Your task to perform on an android device: Search for razer blade on walmart, select the first entry, and add it to the cart. Image 0: 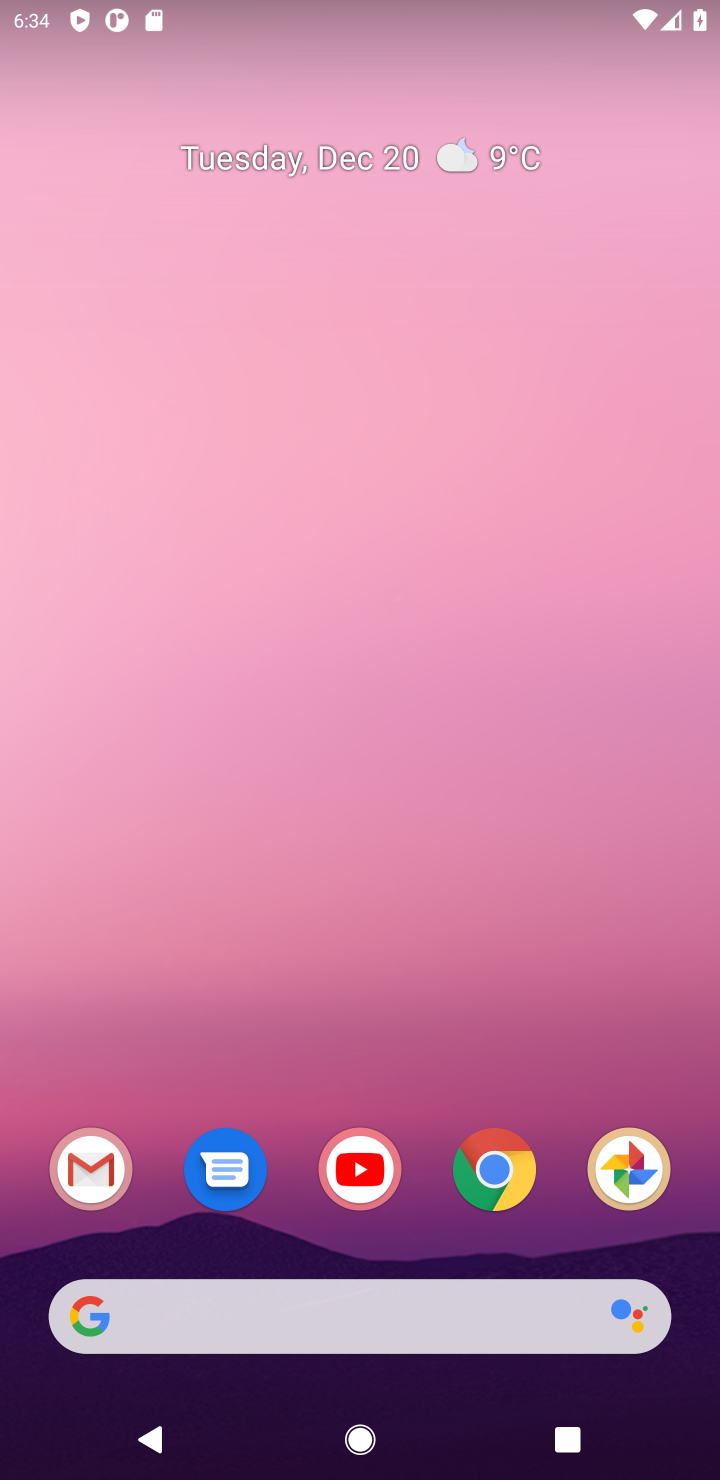
Step 0: click (528, 1163)
Your task to perform on an android device: Search for razer blade on walmart, select the first entry, and add it to the cart. Image 1: 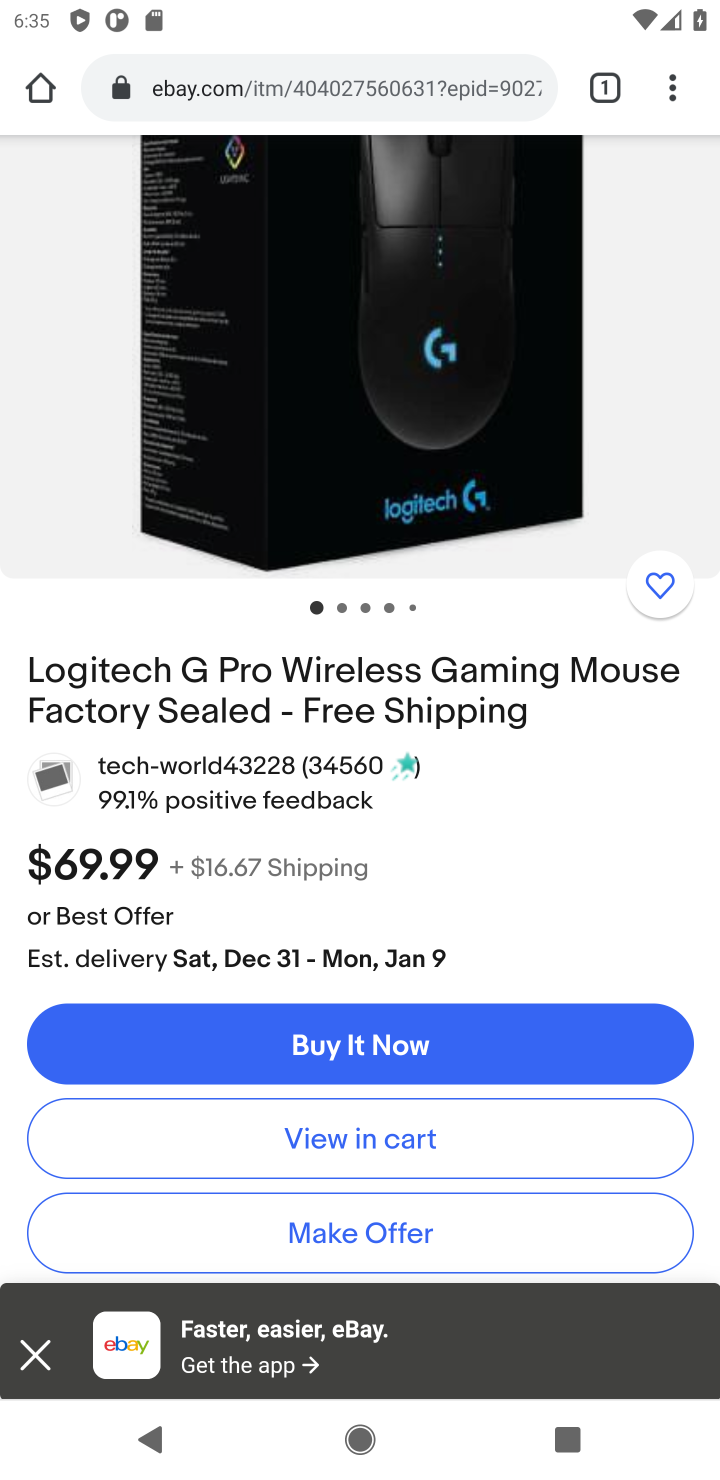
Step 1: press home button
Your task to perform on an android device: Search for razer blade on walmart, select the first entry, and add it to the cart. Image 2: 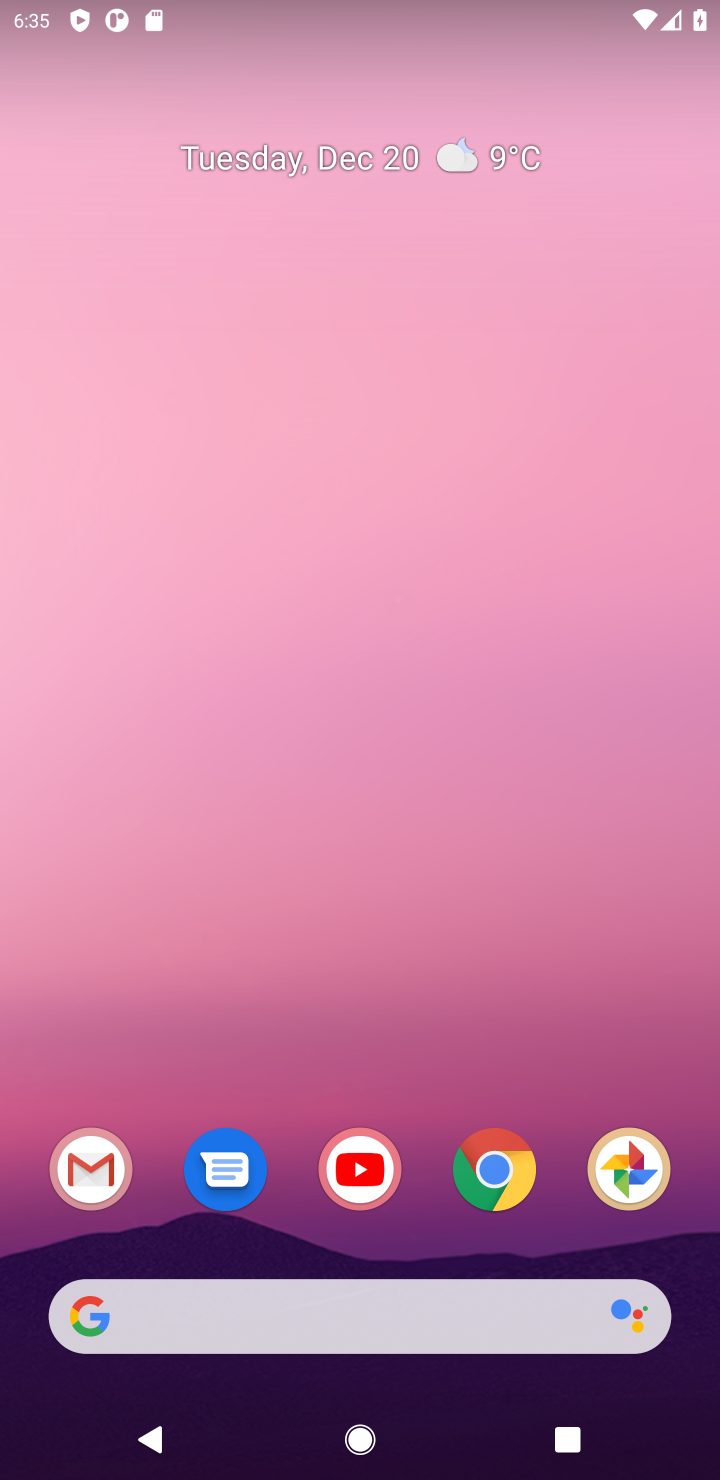
Step 2: click (521, 1141)
Your task to perform on an android device: Search for razer blade on walmart, select the first entry, and add it to the cart. Image 3: 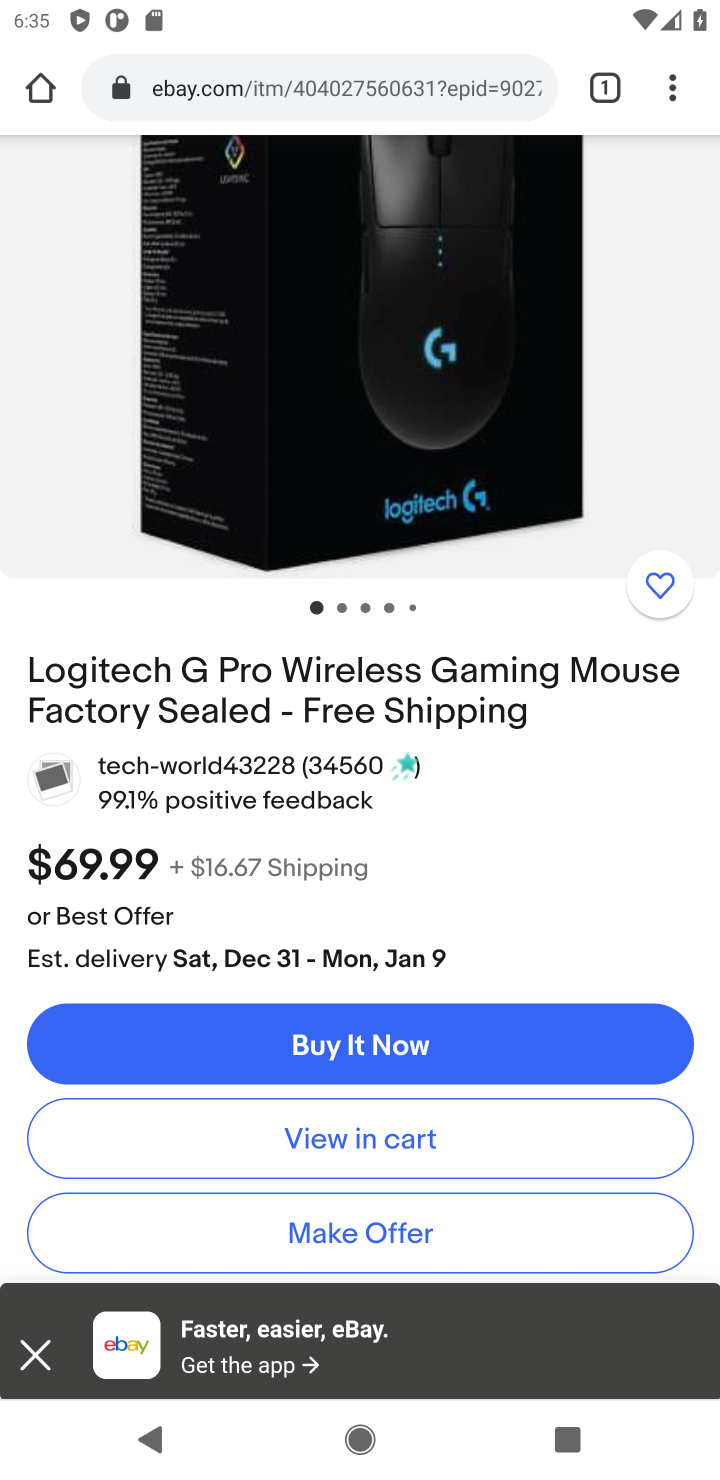
Step 3: press home button
Your task to perform on an android device: Search for razer blade on walmart, select the first entry, and add it to the cart. Image 4: 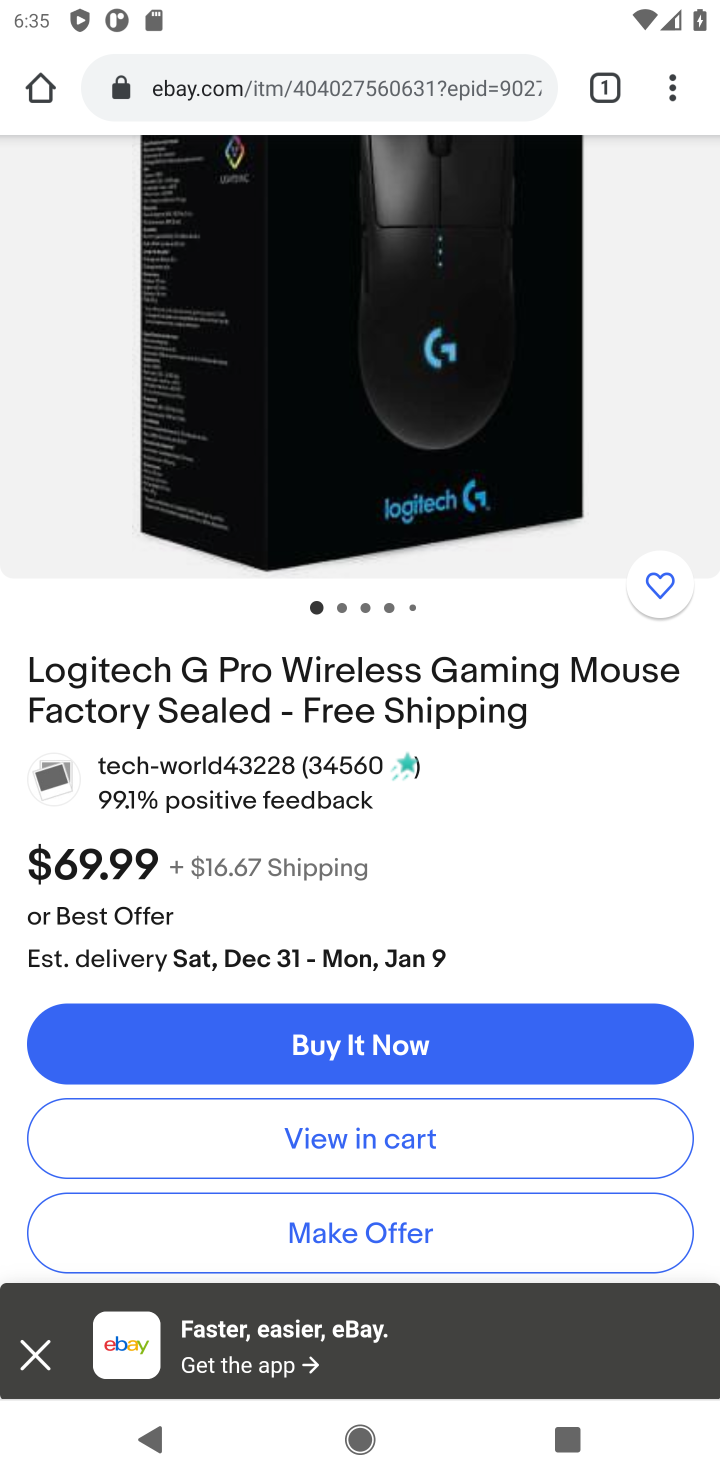
Step 4: press home button
Your task to perform on an android device: Search for razer blade on walmart, select the first entry, and add it to the cart. Image 5: 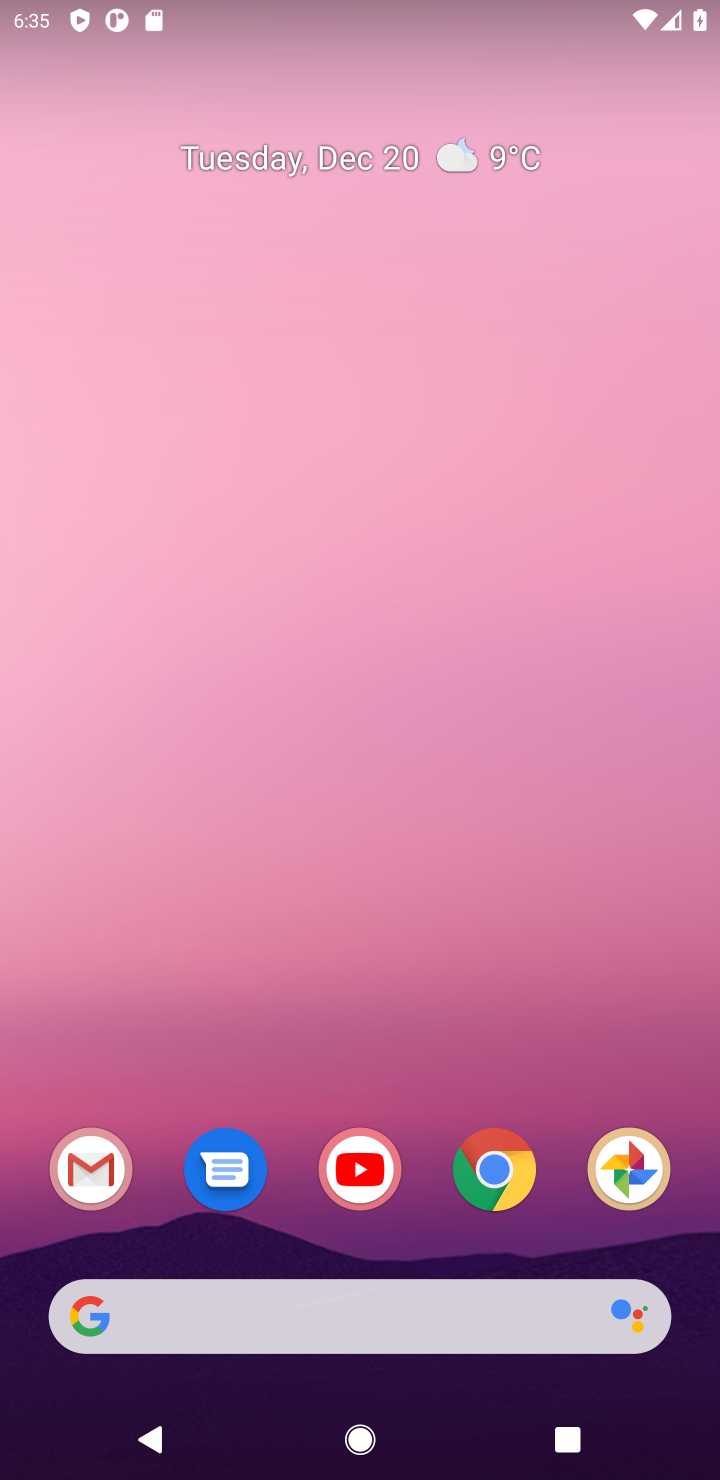
Step 5: click (538, 1176)
Your task to perform on an android device: Search for razer blade on walmart, select the first entry, and add it to the cart. Image 6: 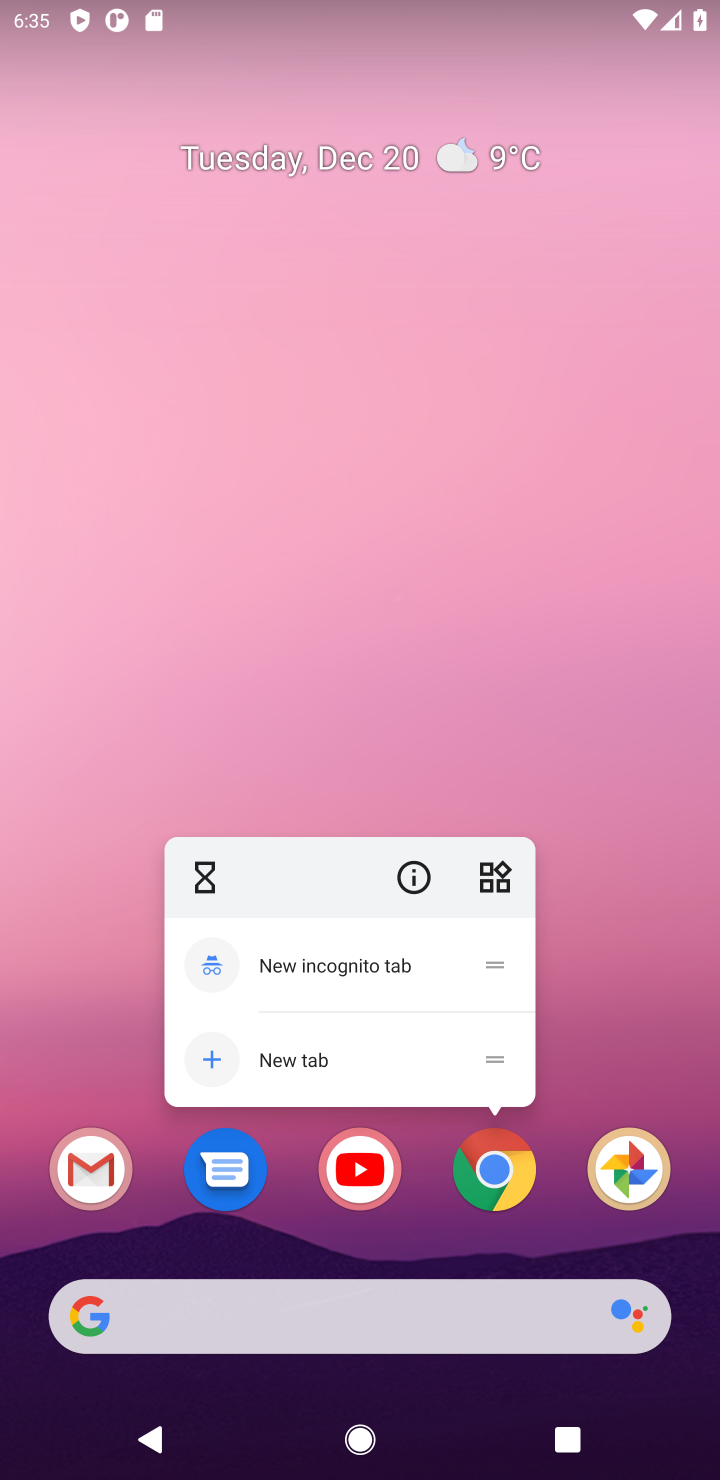
Step 6: click (495, 1178)
Your task to perform on an android device: Search for razer blade on walmart, select the first entry, and add it to the cart. Image 7: 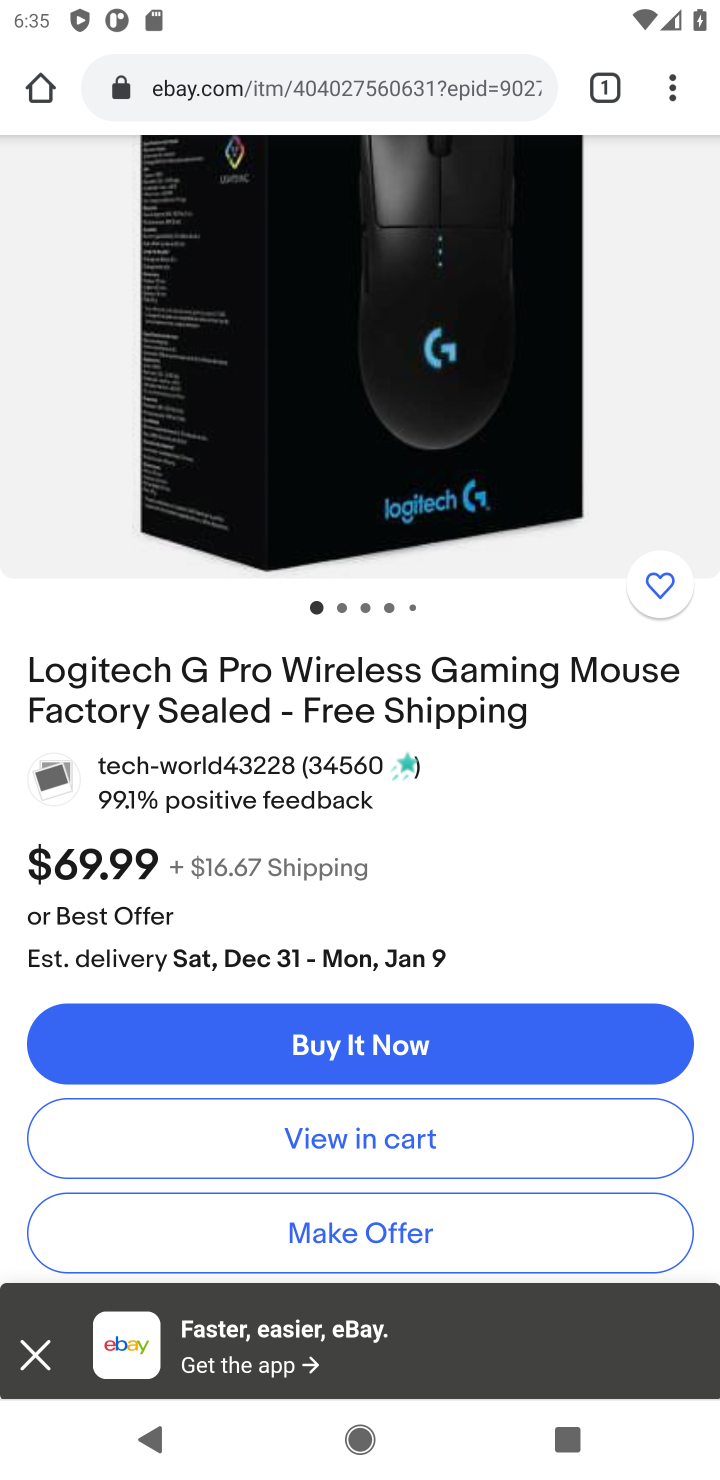
Step 7: click (361, 96)
Your task to perform on an android device: Search for razer blade on walmart, select the first entry, and add it to the cart. Image 8: 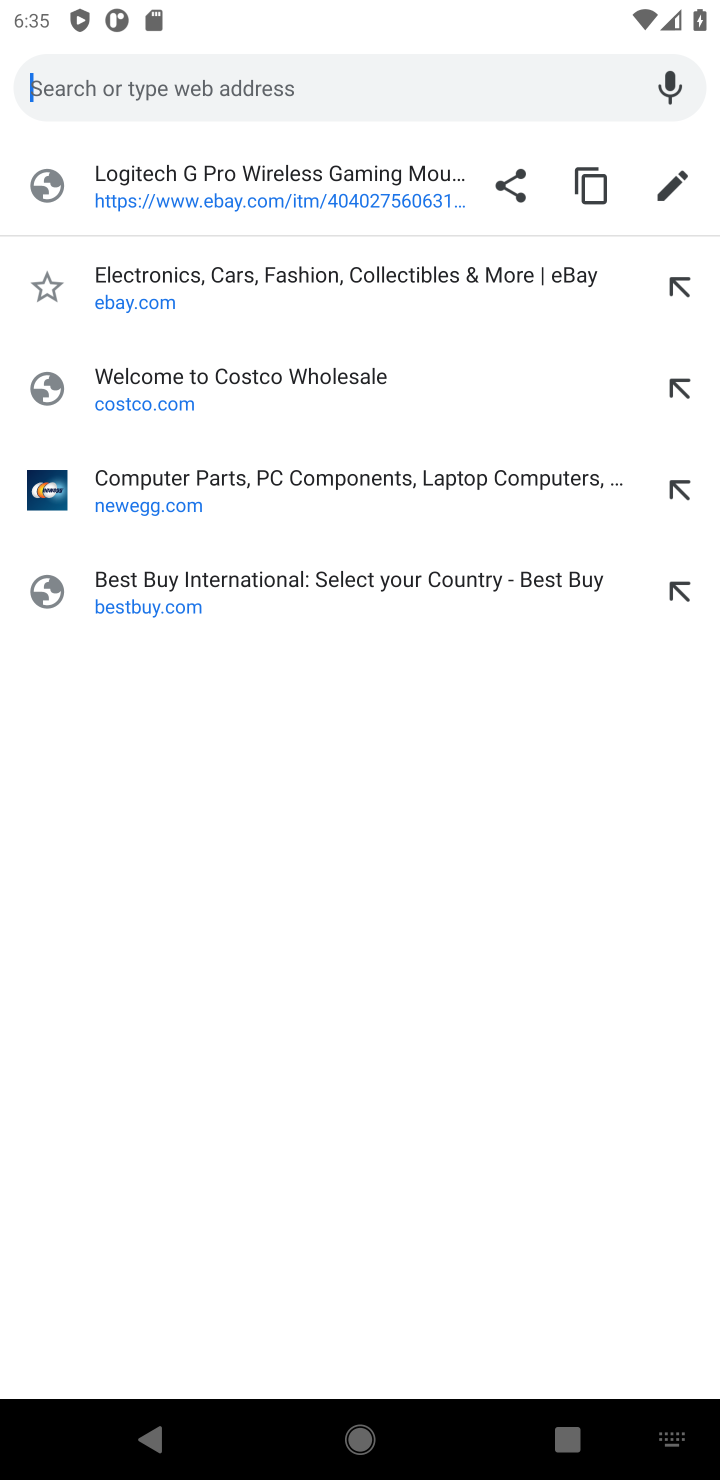
Step 8: click (295, 392)
Your task to perform on an android device: Search for razer blade on walmart, select the first entry, and add it to the cart. Image 9: 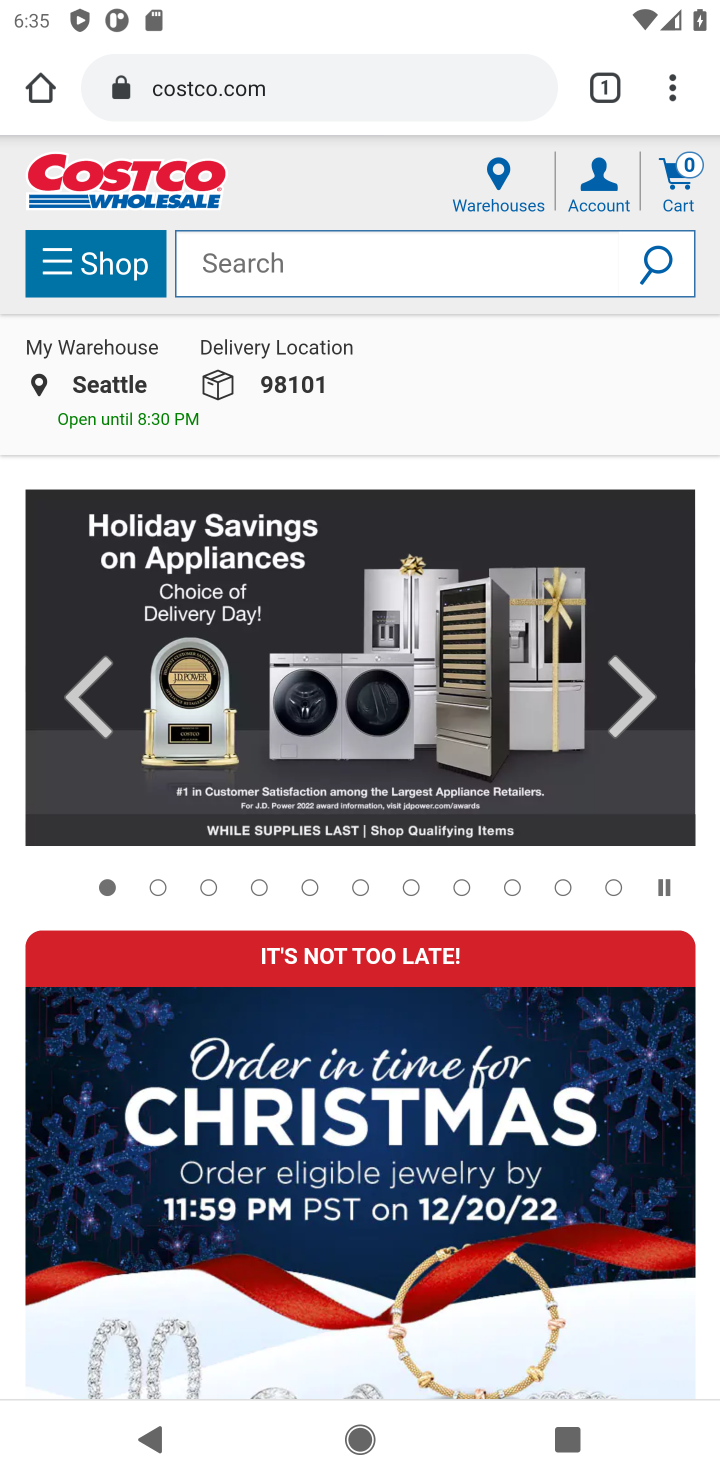
Step 9: click (296, 72)
Your task to perform on an android device: Search for razer blade on walmart, select the first entry, and add it to the cart. Image 10: 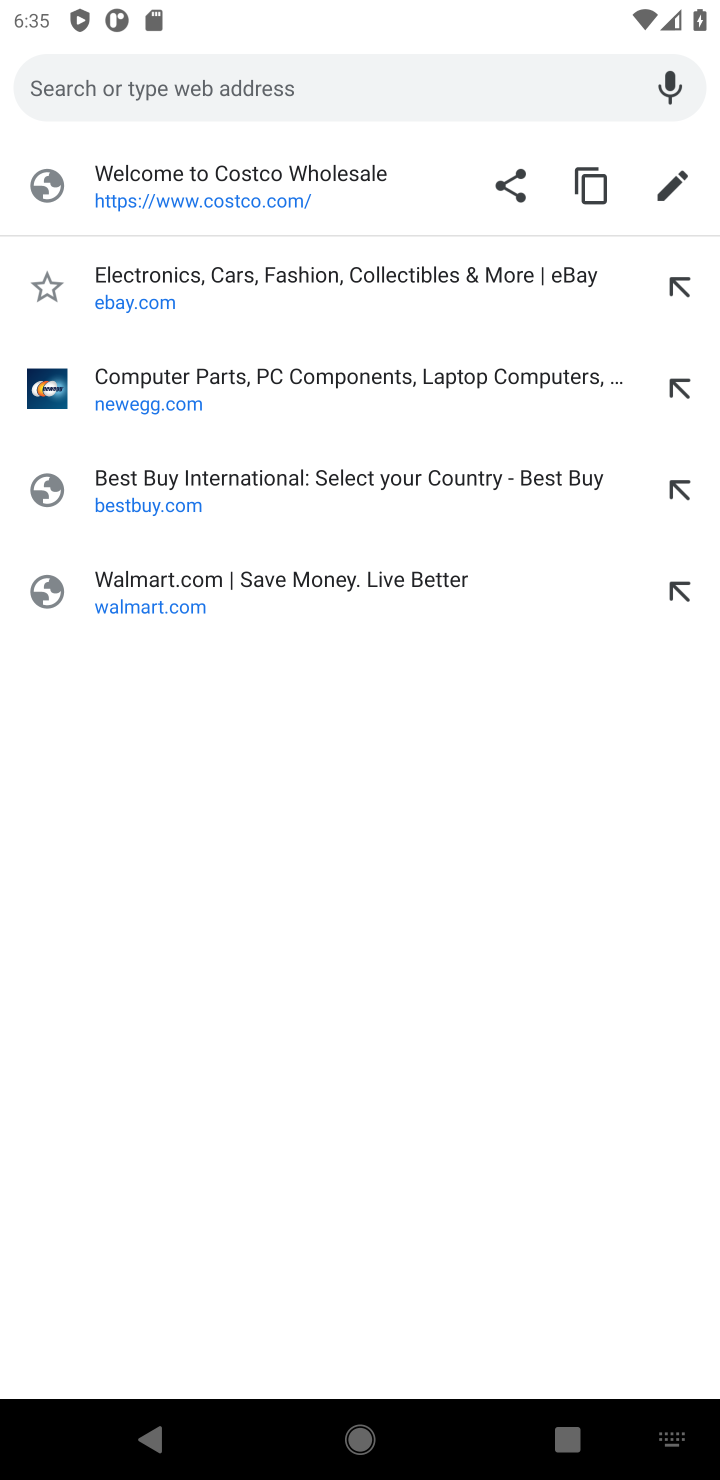
Step 10: click (351, 566)
Your task to perform on an android device: Search for razer blade on walmart, select the first entry, and add it to the cart. Image 11: 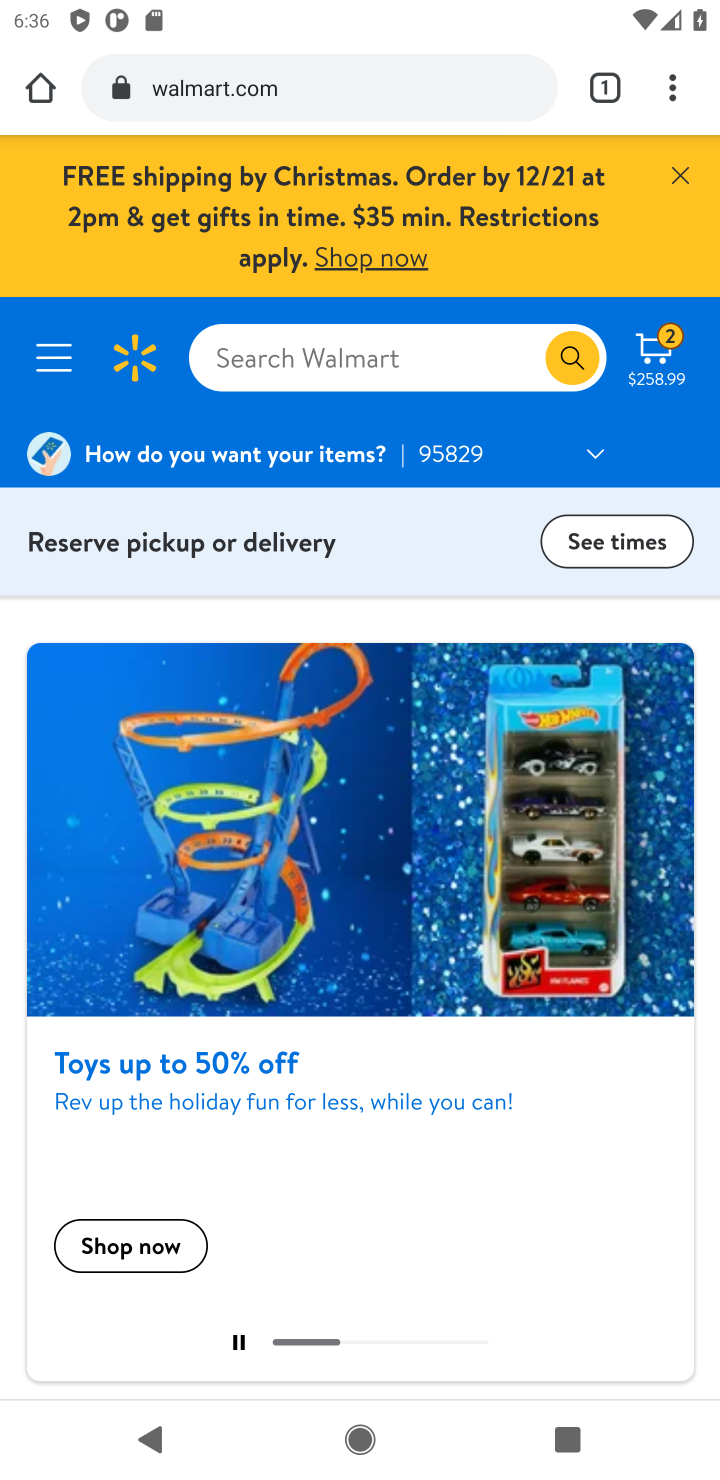
Step 11: click (267, 344)
Your task to perform on an android device: Search for razer blade on walmart, select the first entry, and add it to the cart. Image 12: 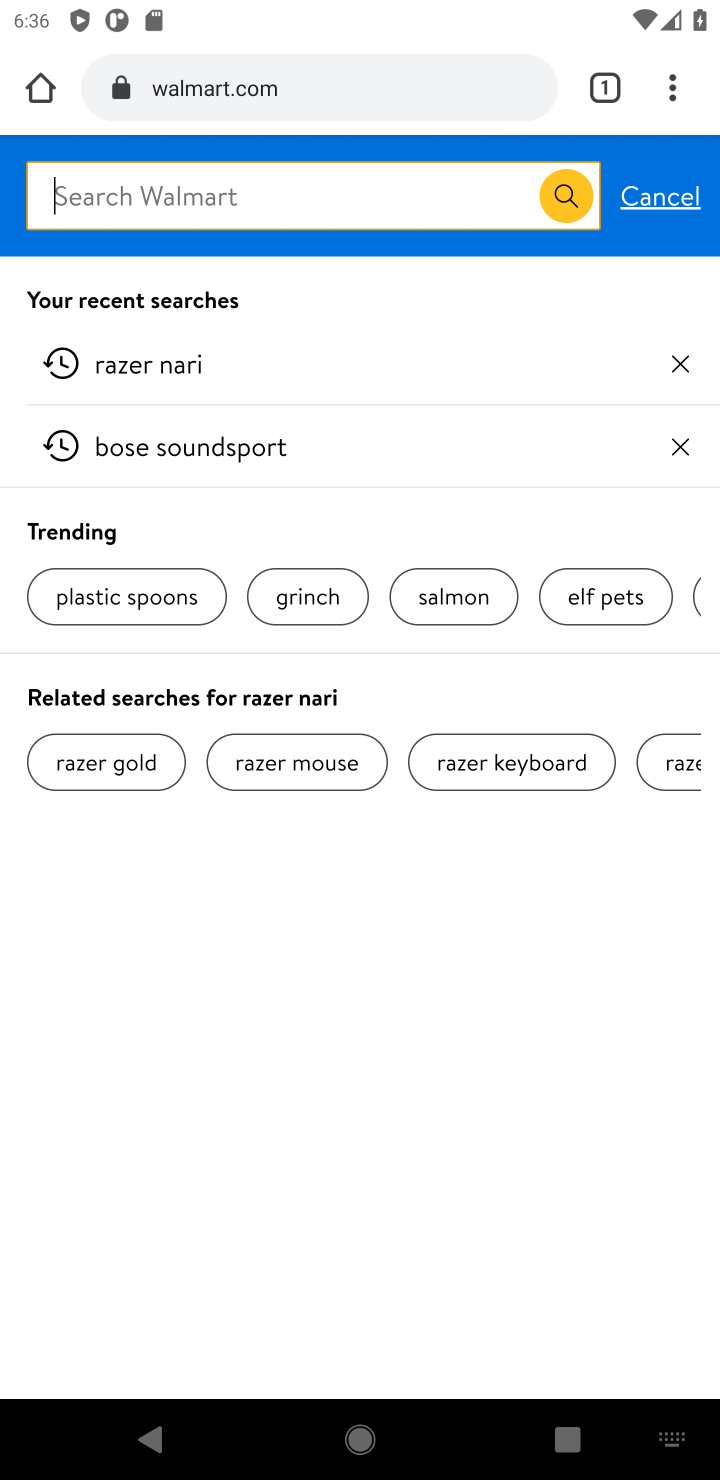
Step 12: type "razer blade"
Your task to perform on an android device: Search for razer blade on walmart, select the first entry, and add it to the cart. Image 13: 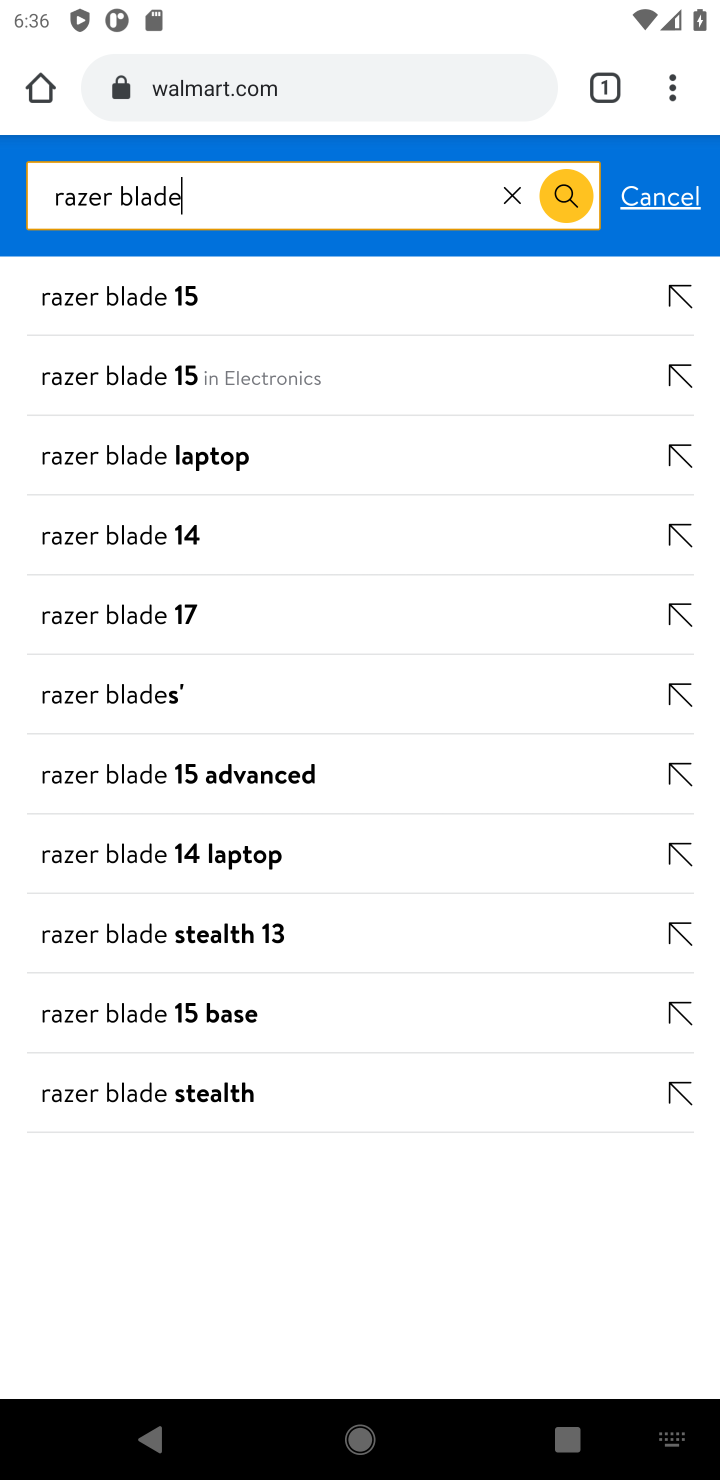
Step 13: click (181, 679)
Your task to perform on an android device: Search for razer blade on walmart, select the first entry, and add it to the cart. Image 14: 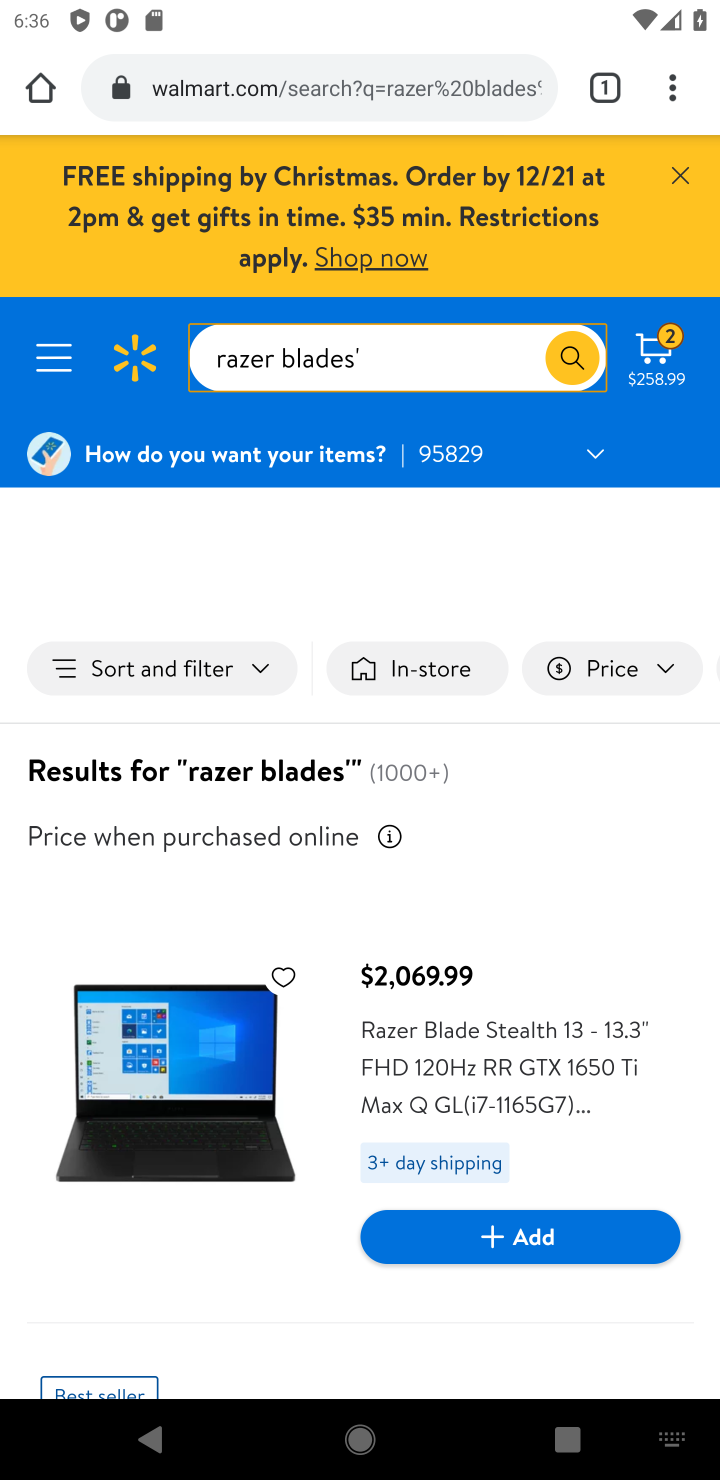
Step 14: click (489, 1227)
Your task to perform on an android device: Search for razer blade on walmart, select the first entry, and add it to the cart. Image 15: 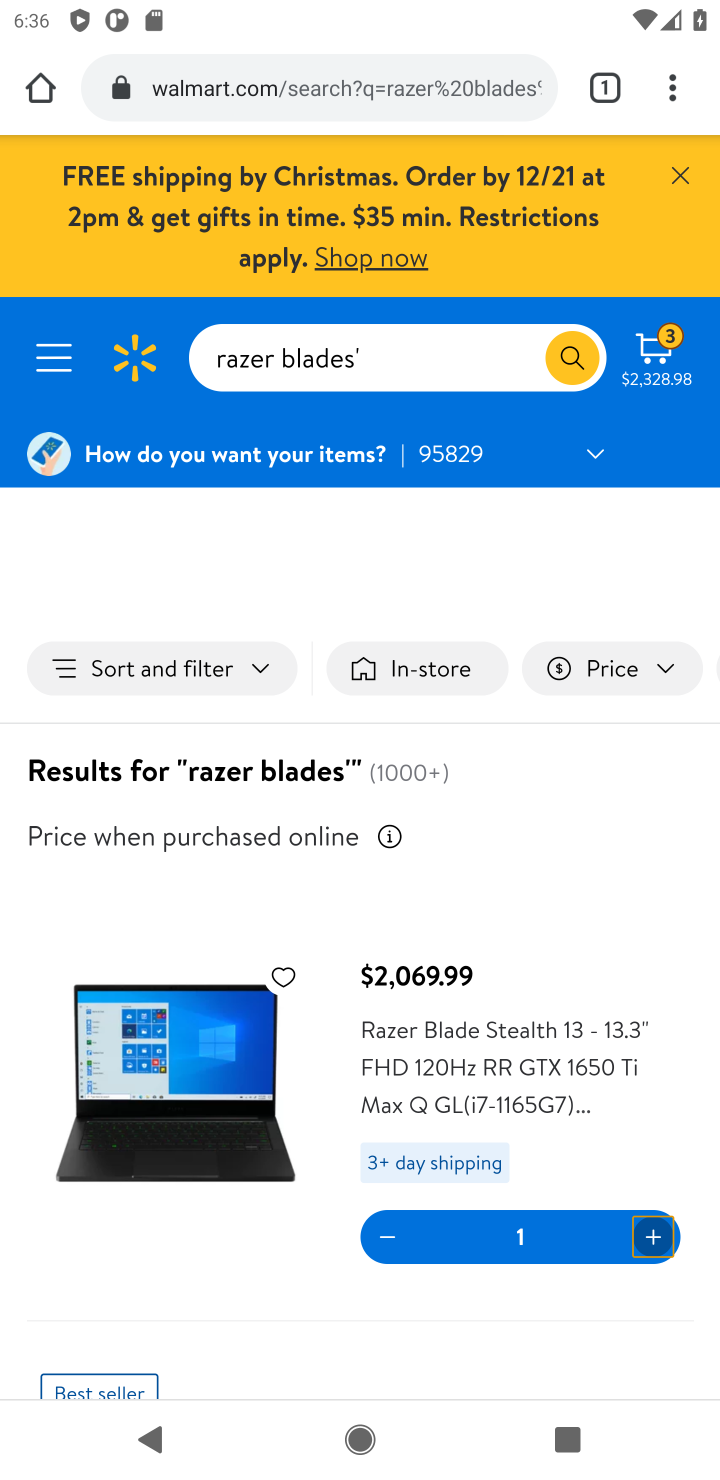
Step 15: task complete